Your task to perform on an android device: move an email to a new category in the gmail app Image 0: 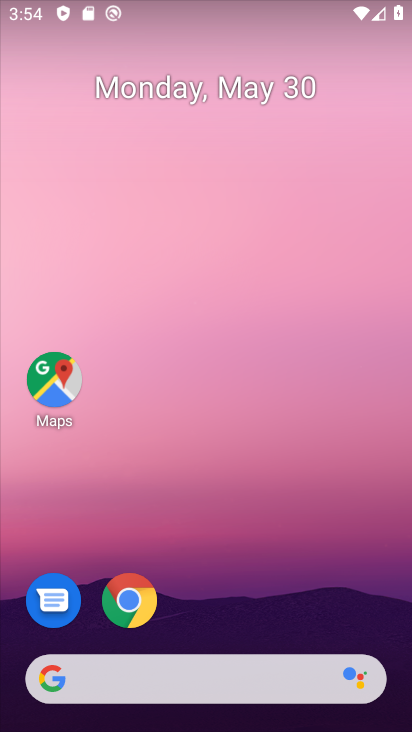
Step 0: drag from (226, 608) to (126, 199)
Your task to perform on an android device: move an email to a new category in the gmail app Image 1: 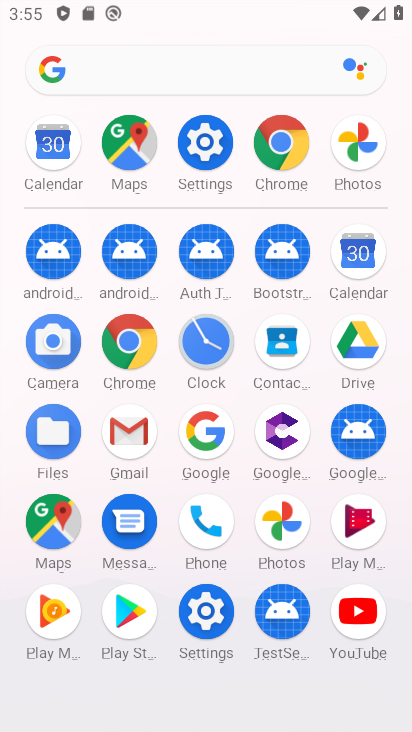
Step 1: click (126, 439)
Your task to perform on an android device: move an email to a new category in the gmail app Image 2: 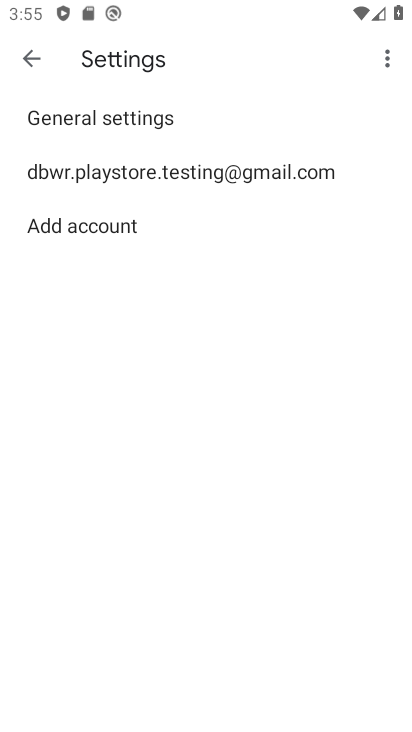
Step 2: click (31, 55)
Your task to perform on an android device: move an email to a new category in the gmail app Image 3: 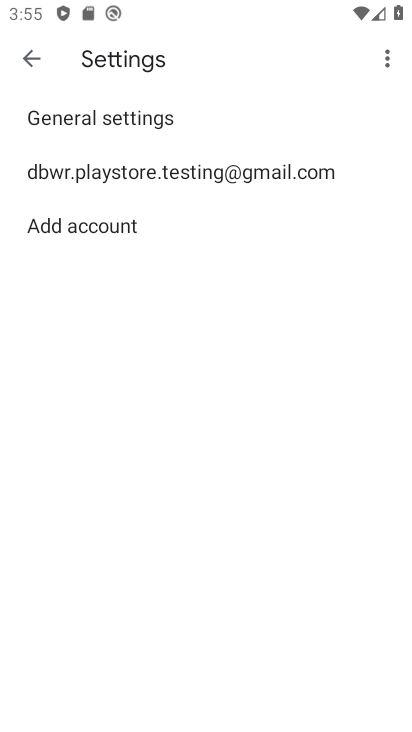
Step 3: click (31, 55)
Your task to perform on an android device: move an email to a new category in the gmail app Image 4: 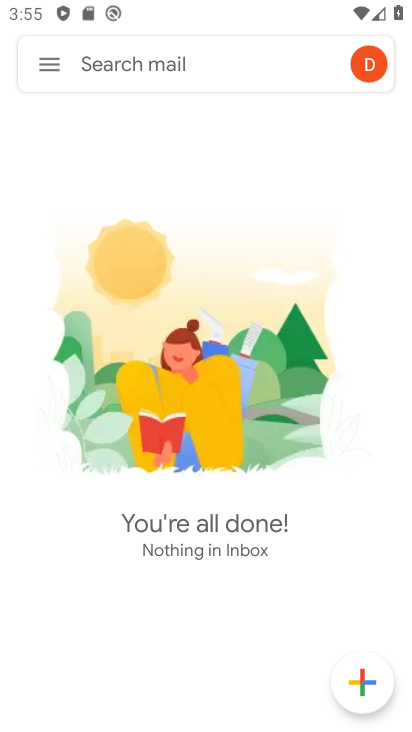
Step 4: task complete